Your task to perform on an android device: toggle wifi Image 0: 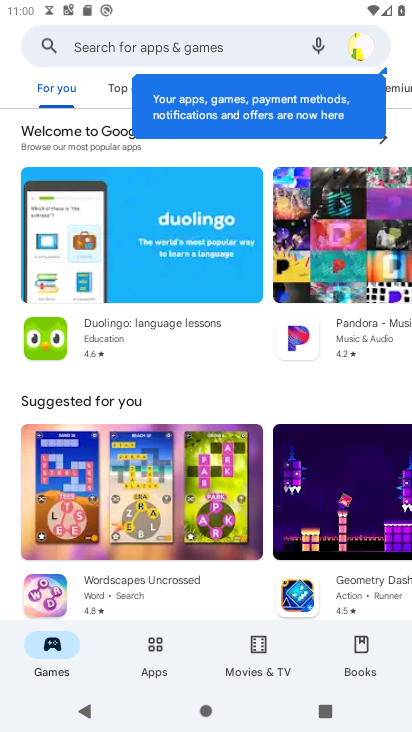
Step 0: press home button
Your task to perform on an android device: toggle wifi Image 1: 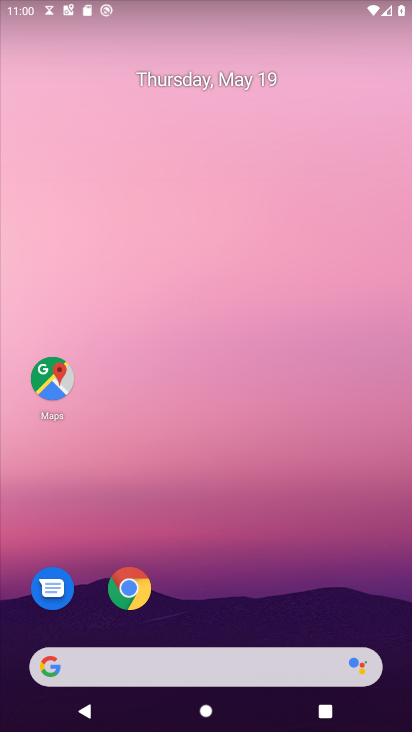
Step 1: drag from (247, 417) to (209, 0)
Your task to perform on an android device: toggle wifi Image 2: 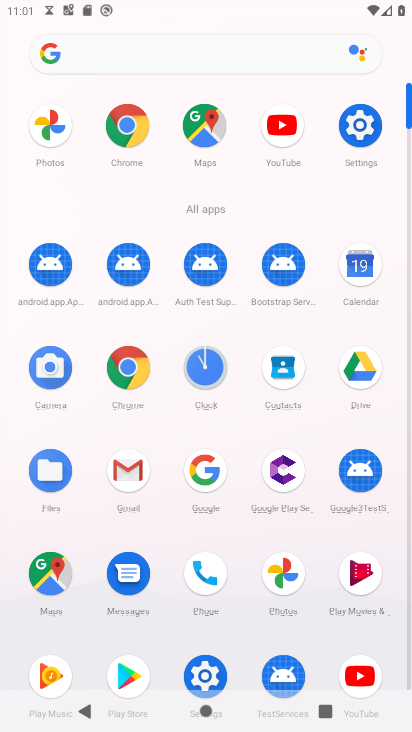
Step 2: click (364, 135)
Your task to perform on an android device: toggle wifi Image 3: 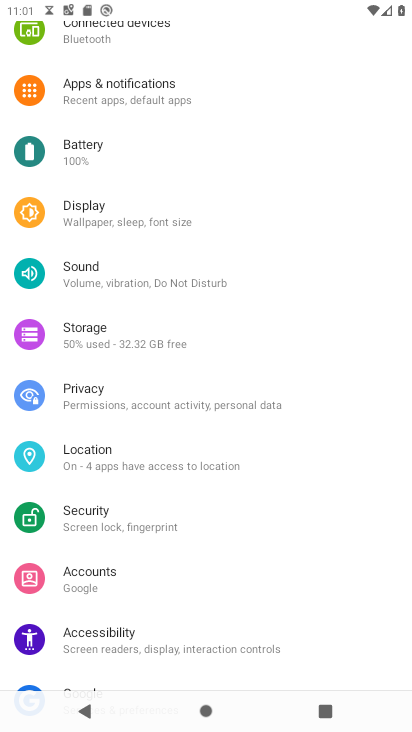
Step 3: drag from (223, 112) to (257, 581)
Your task to perform on an android device: toggle wifi Image 4: 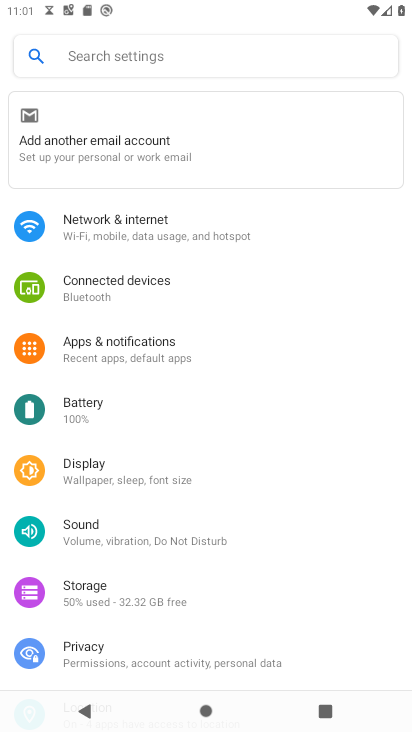
Step 4: click (131, 241)
Your task to perform on an android device: toggle wifi Image 5: 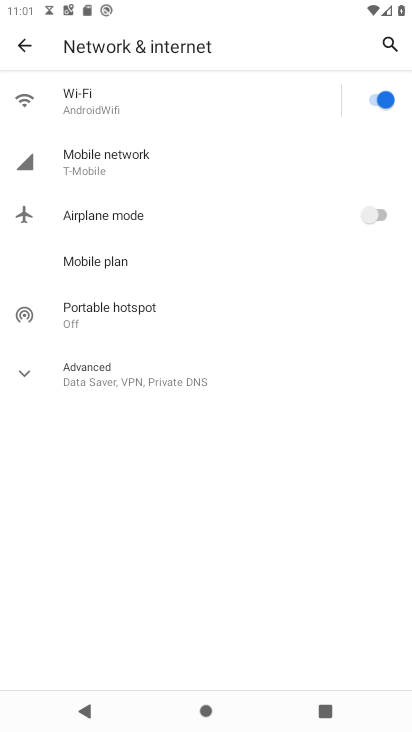
Step 5: click (186, 102)
Your task to perform on an android device: toggle wifi Image 6: 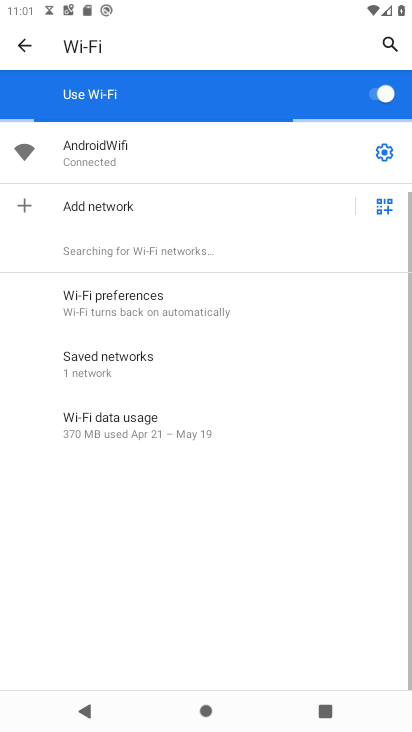
Step 6: click (392, 80)
Your task to perform on an android device: toggle wifi Image 7: 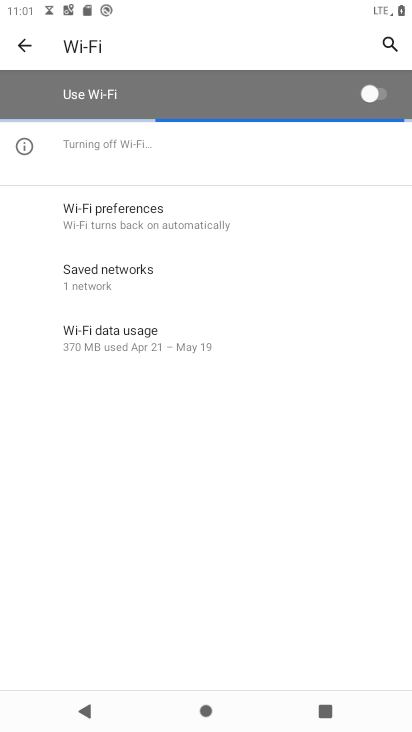
Step 7: task complete